Your task to perform on an android device: find snoozed emails in the gmail app Image 0: 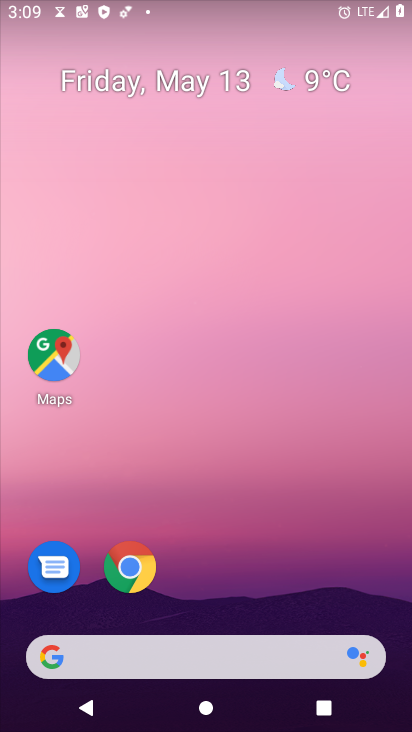
Step 0: drag from (315, 579) to (308, 99)
Your task to perform on an android device: find snoozed emails in the gmail app Image 1: 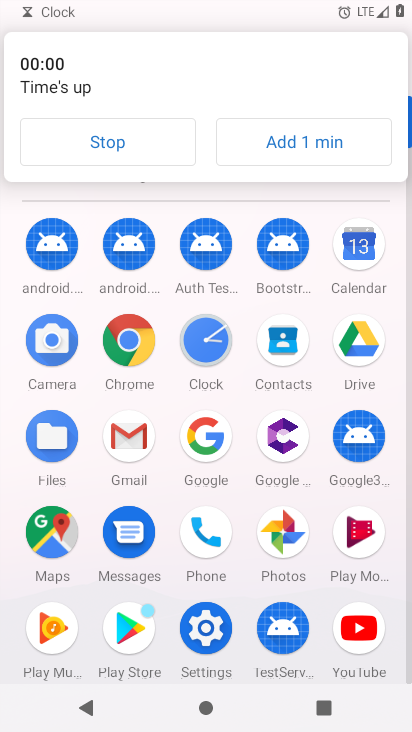
Step 1: click (198, 134)
Your task to perform on an android device: find snoozed emails in the gmail app Image 2: 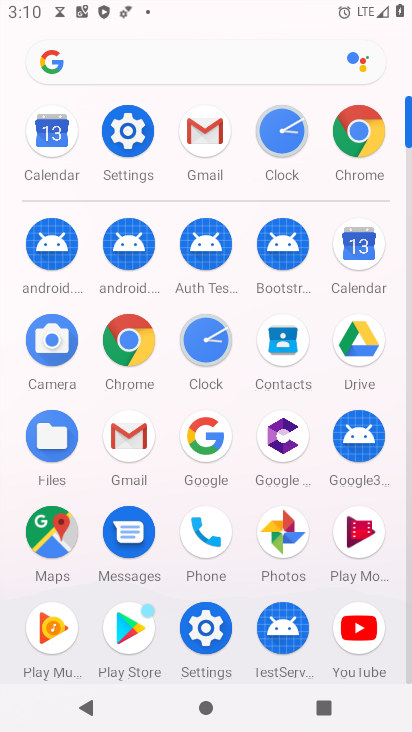
Step 2: click (205, 141)
Your task to perform on an android device: find snoozed emails in the gmail app Image 3: 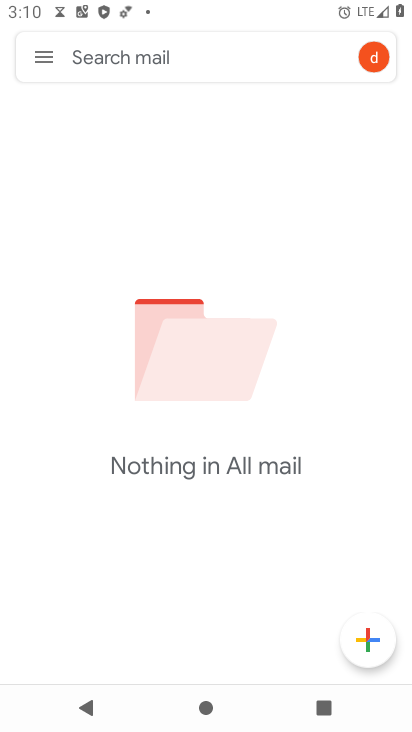
Step 3: click (40, 59)
Your task to perform on an android device: find snoozed emails in the gmail app Image 4: 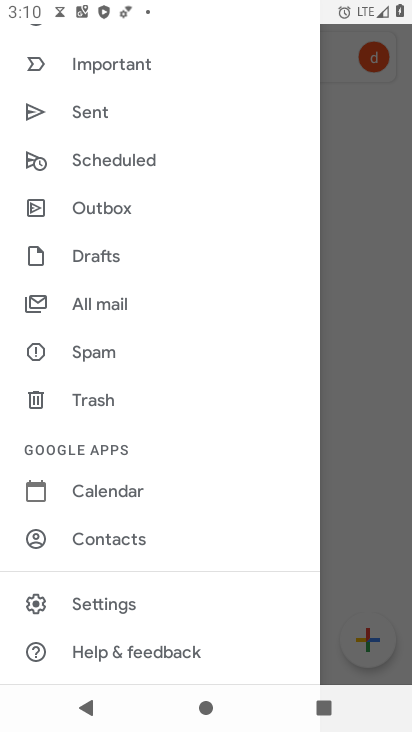
Step 4: drag from (165, 291) to (160, 553)
Your task to perform on an android device: find snoozed emails in the gmail app Image 5: 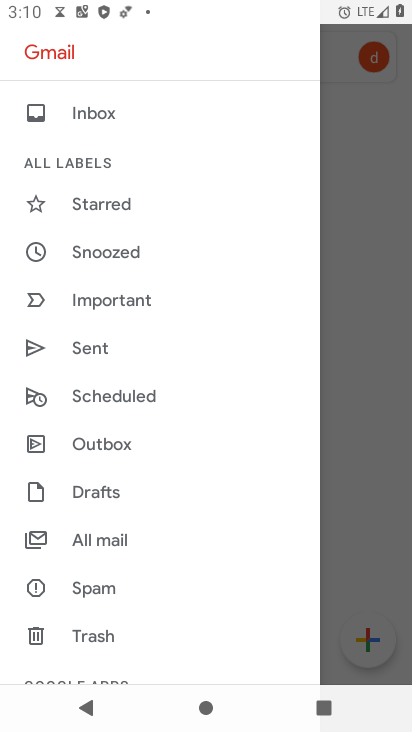
Step 5: click (103, 254)
Your task to perform on an android device: find snoozed emails in the gmail app Image 6: 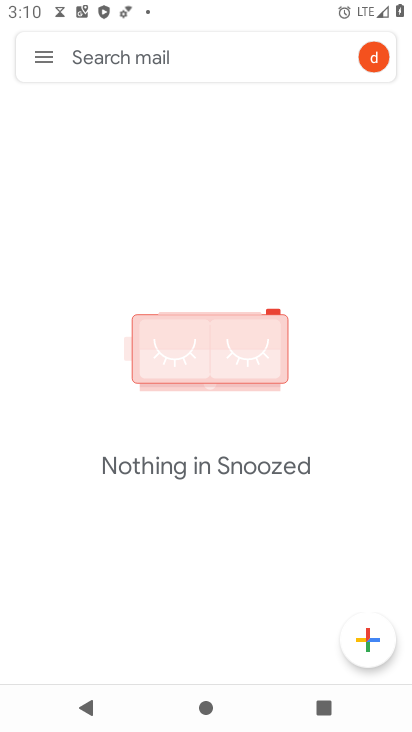
Step 6: task complete